Your task to perform on an android device: turn on data saver in the chrome app Image 0: 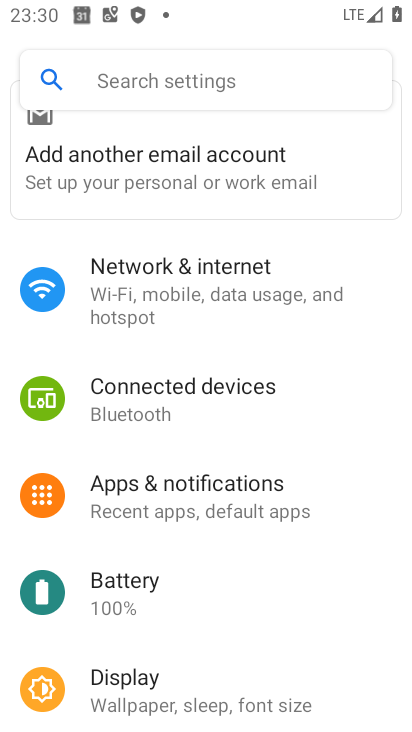
Step 0: press home button
Your task to perform on an android device: turn on data saver in the chrome app Image 1: 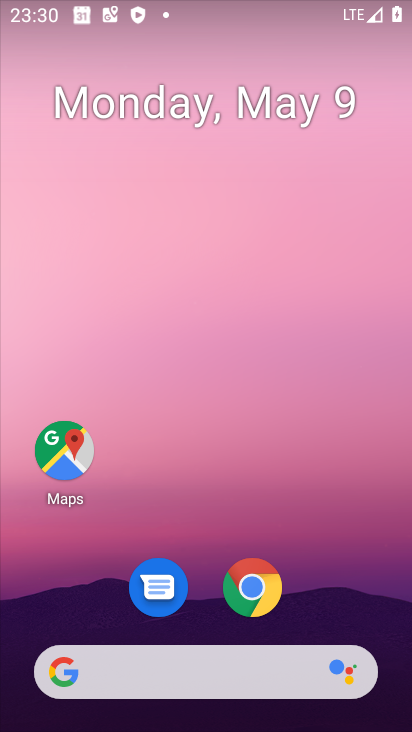
Step 1: click (250, 575)
Your task to perform on an android device: turn on data saver in the chrome app Image 2: 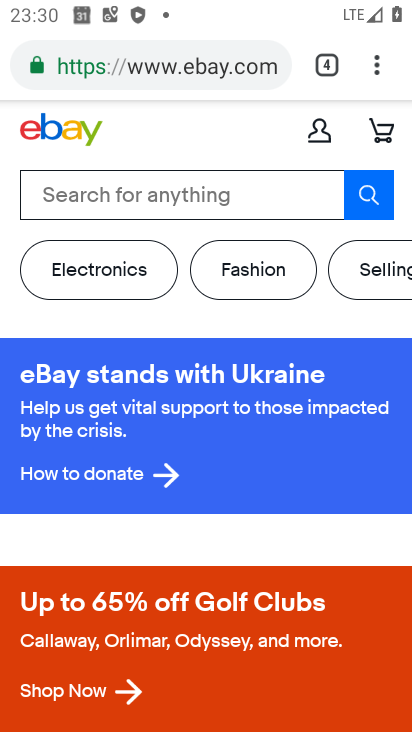
Step 2: click (367, 54)
Your task to perform on an android device: turn on data saver in the chrome app Image 3: 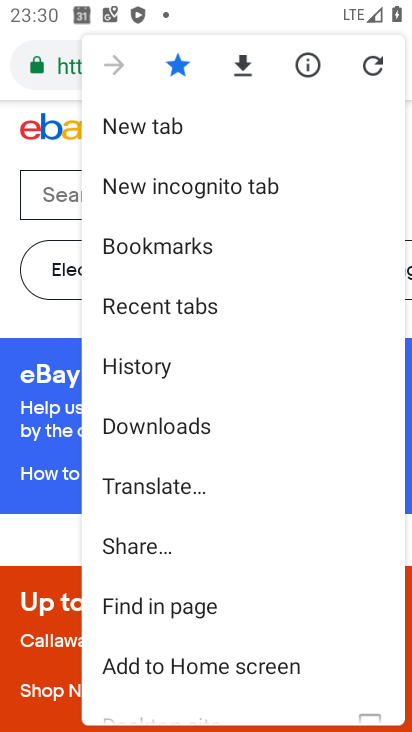
Step 3: drag from (179, 596) to (231, 67)
Your task to perform on an android device: turn on data saver in the chrome app Image 4: 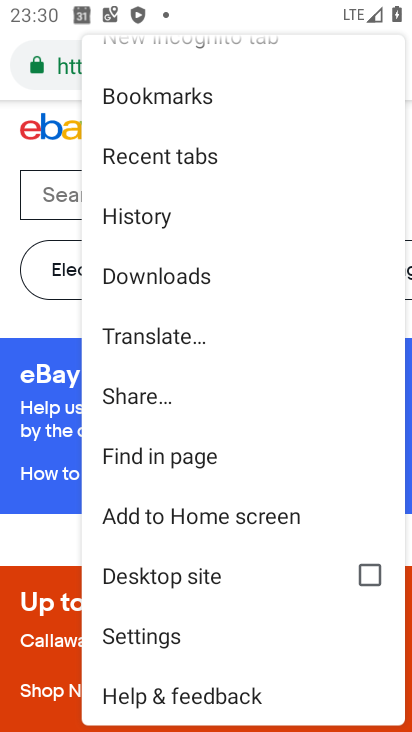
Step 4: click (124, 636)
Your task to perform on an android device: turn on data saver in the chrome app Image 5: 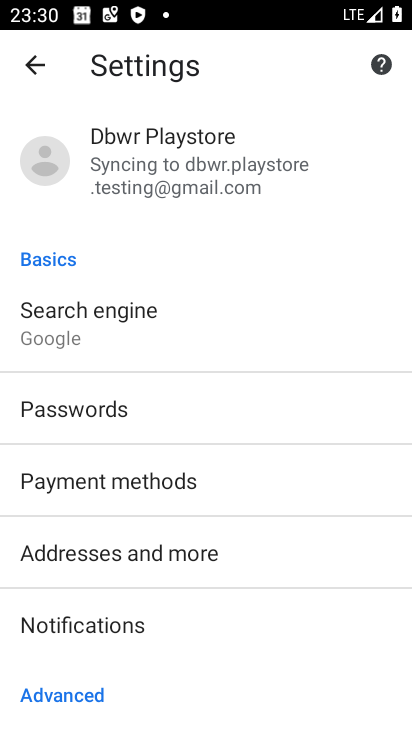
Step 5: drag from (125, 675) to (165, 194)
Your task to perform on an android device: turn on data saver in the chrome app Image 6: 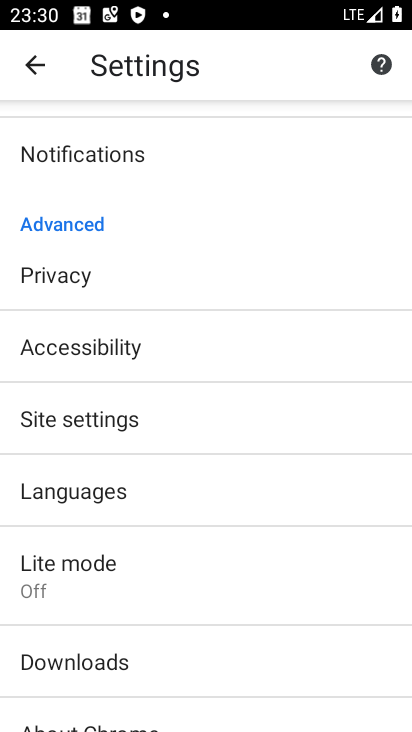
Step 6: click (96, 603)
Your task to perform on an android device: turn on data saver in the chrome app Image 7: 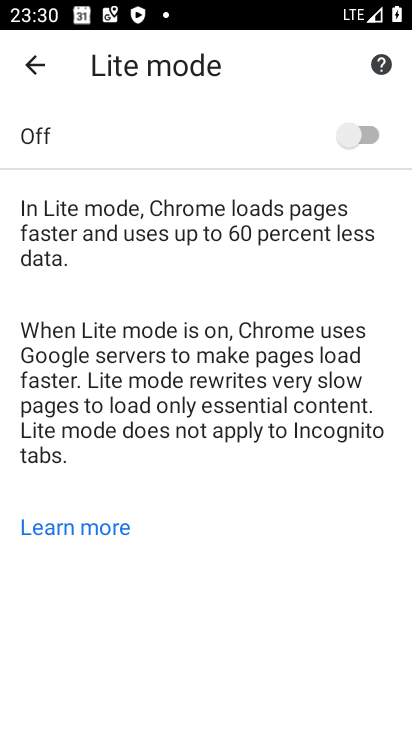
Step 7: click (378, 123)
Your task to perform on an android device: turn on data saver in the chrome app Image 8: 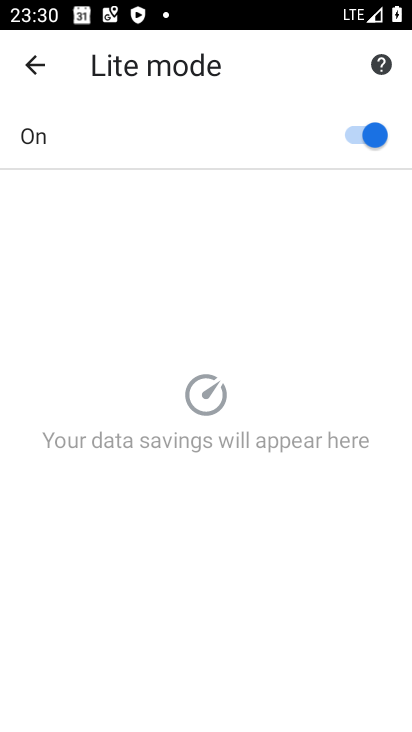
Step 8: task complete